Your task to perform on an android device: Go to calendar. Show me events next week Image 0: 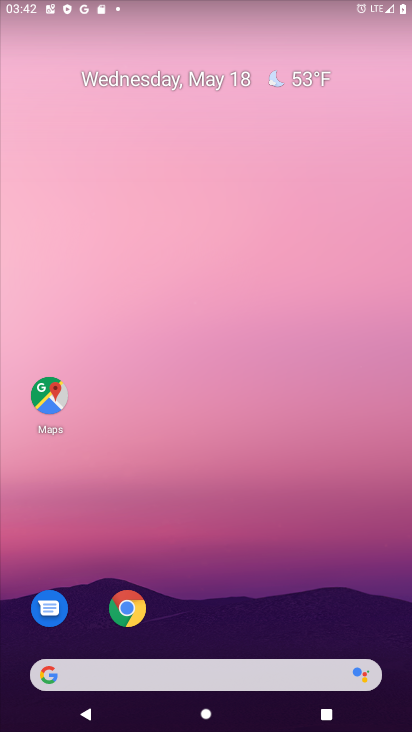
Step 0: drag from (271, 612) to (270, 1)
Your task to perform on an android device: Go to calendar. Show me events next week Image 1: 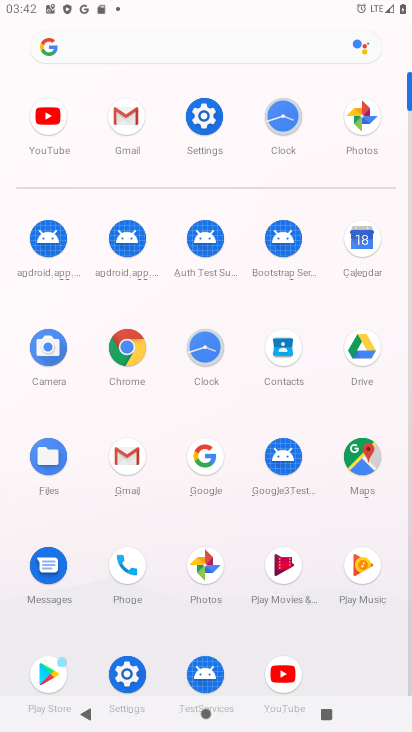
Step 1: click (358, 257)
Your task to perform on an android device: Go to calendar. Show me events next week Image 2: 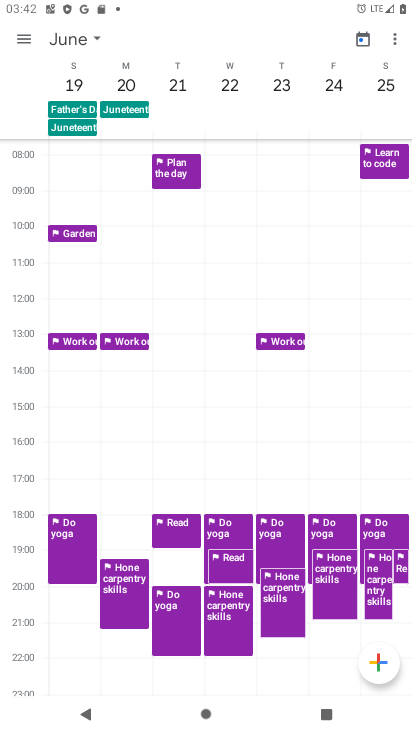
Step 2: click (356, 40)
Your task to perform on an android device: Go to calendar. Show me events next week Image 3: 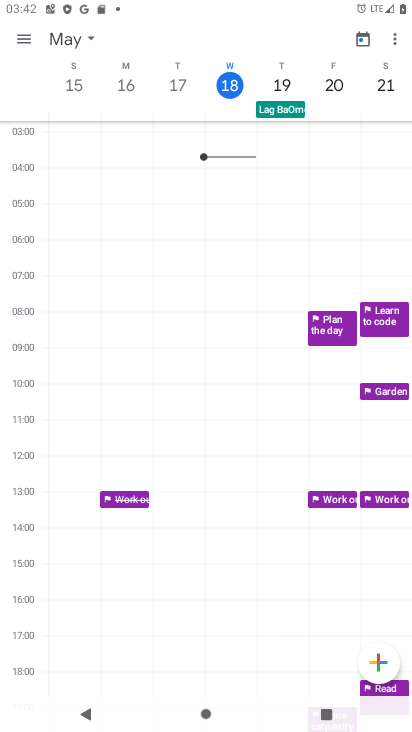
Step 3: drag from (362, 414) to (4, 93)
Your task to perform on an android device: Go to calendar. Show me events next week Image 4: 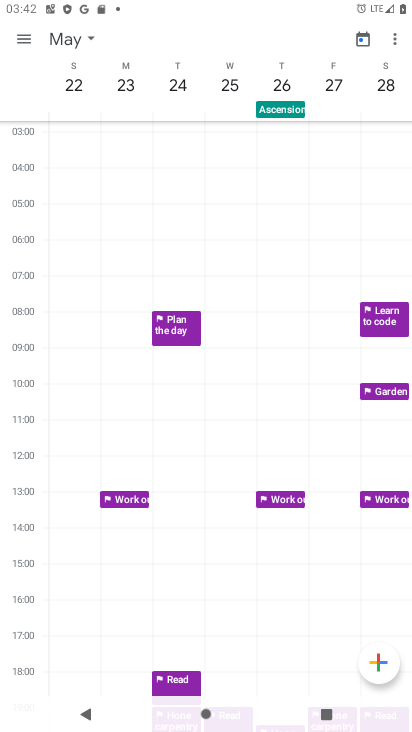
Step 4: click (26, 44)
Your task to perform on an android device: Go to calendar. Show me events next week Image 5: 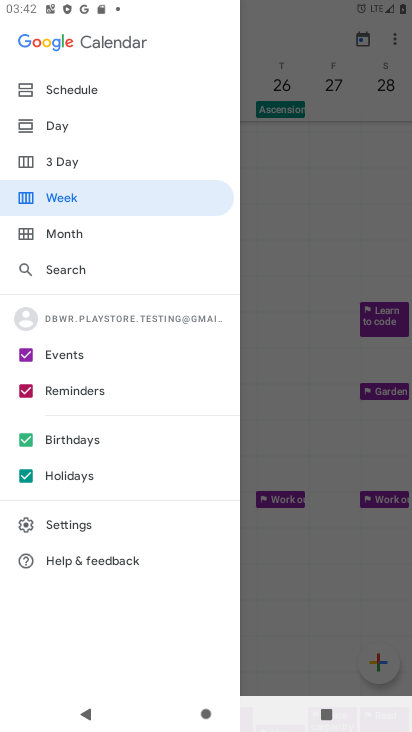
Step 5: click (26, 385)
Your task to perform on an android device: Go to calendar. Show me events next week Image 6: 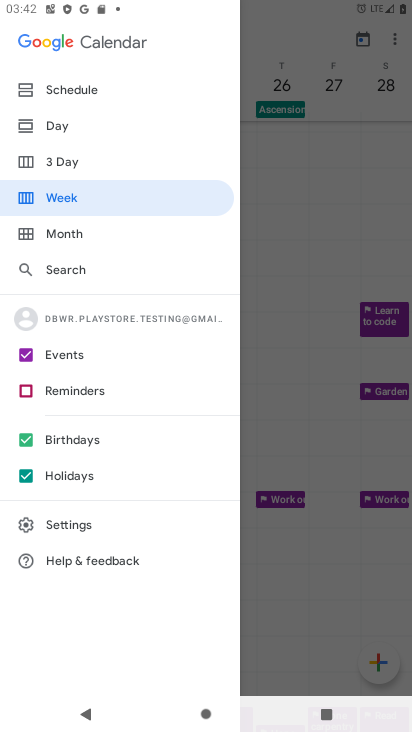
Step 6: click (24, 442)
Your task to perform on an android device: Go to calendar. Show me events next week Image 7: 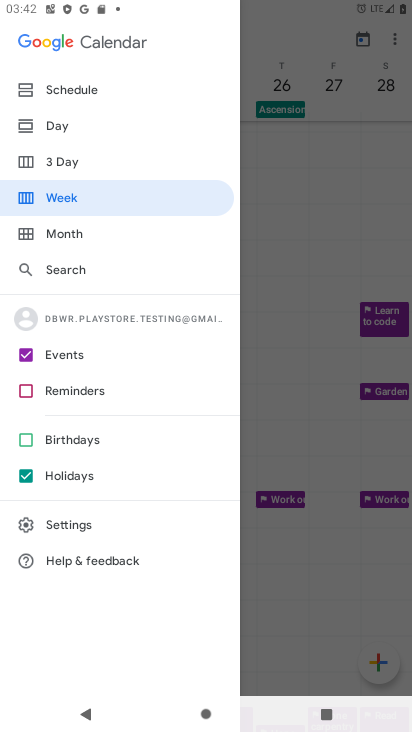
Step 7: click (26, 480)
Your task to perform on an android device: Go to calendar. Show me events next week Image 8: 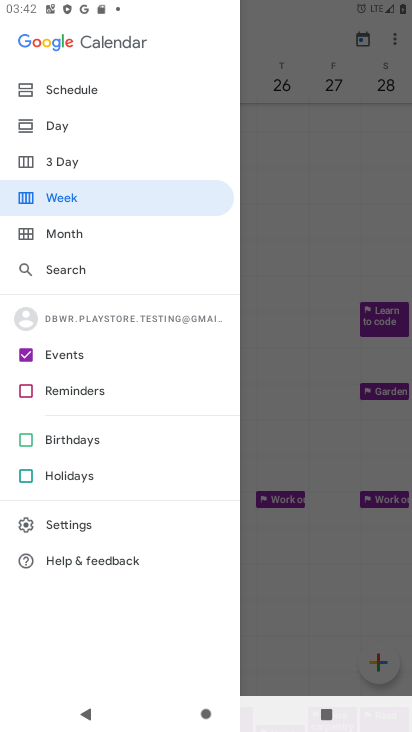
Step 8: click (60, 193)
Your task to perform on an android device: Go to calendar. Show me events next week Image 9: 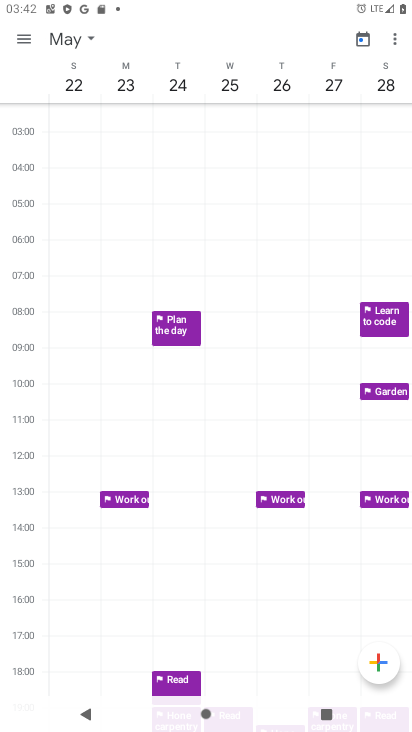
Step 9: click (287, 300)
Your task to perform on an android device: Go to calendar. Show me events next week Image 10: 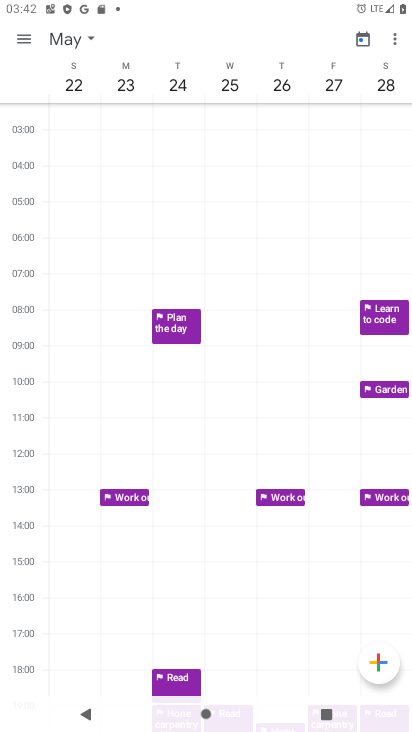
Step 10: task complete